Your task to perform on an android device: Do I have any events tomorrow? Image 0: 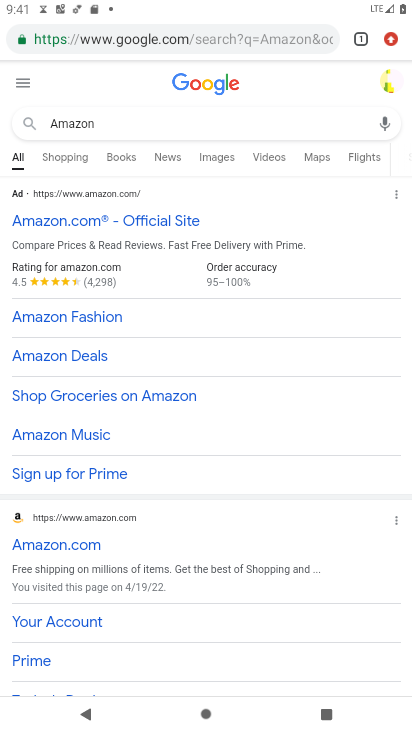
Step 0: press home button
Your task to perform on an android device: Do I have any events tomorrow? Image 1: 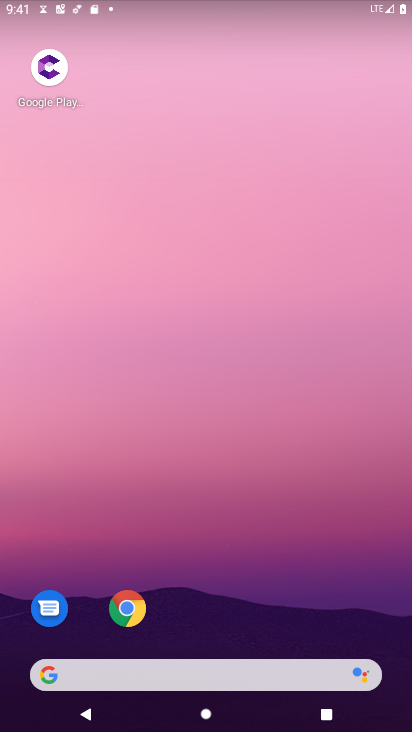
Step 1: drag from (188, 639) to (254, 82)
Your task to perform on an android device: Do I have any events tomorrow? Image 2: 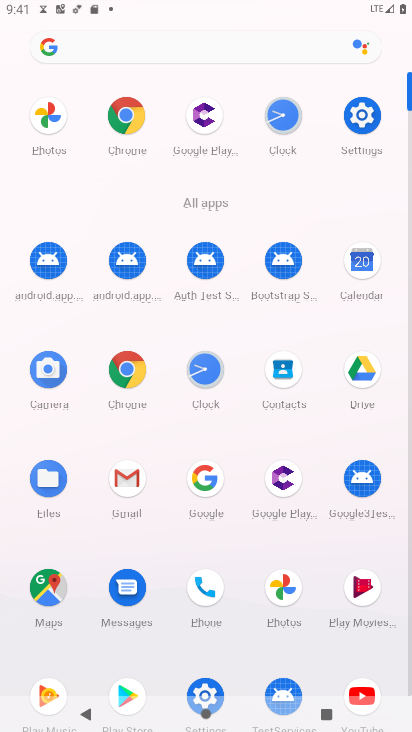
Step 2: click (357, 258)
Your task to perform on an android device: Do I have any events tomorrow? Image 3: 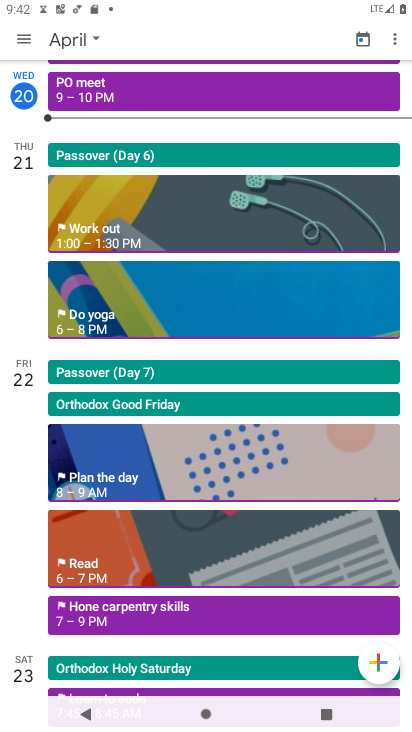
Step 3: click (98, 39)
Your task to perform on an android device: Do I have any events tomorrow? Image 4: 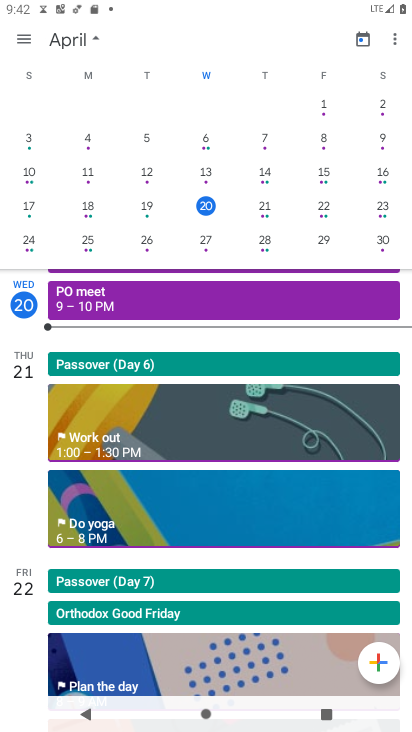
Step 4: click (274, 204)
Your task to perform on an android device: Do I have any events tomorrow? Image 5: 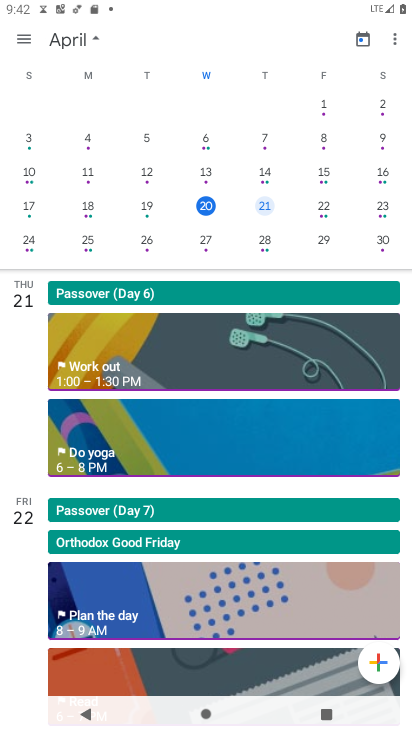
Step 5: click (317, 212)
Your task to perform on an android device: Do I have any events tomorrow? Image 6: 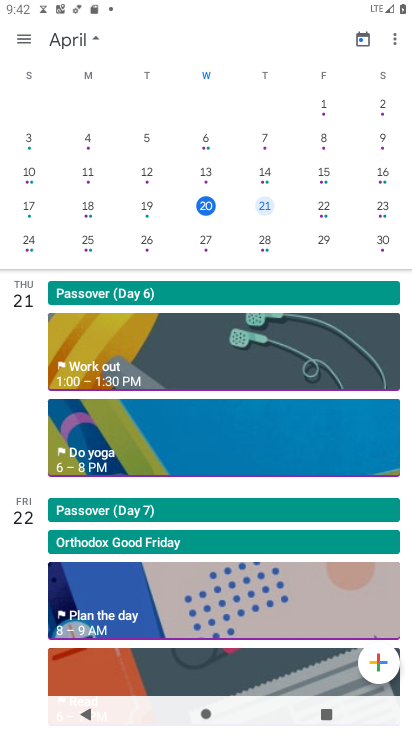
Step 6: task complete